Your task to perform on an android device: Do I have any events this weekend? Image 0: 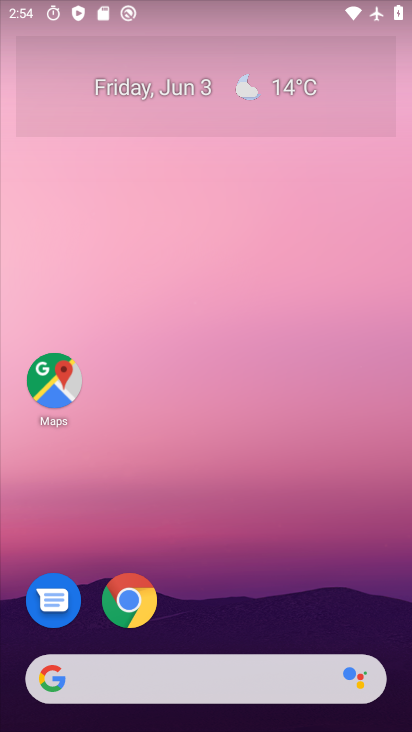
Step 0: click (214, 333)
Your task to perform on an android device: Do I have any events this weekend? Image 1: 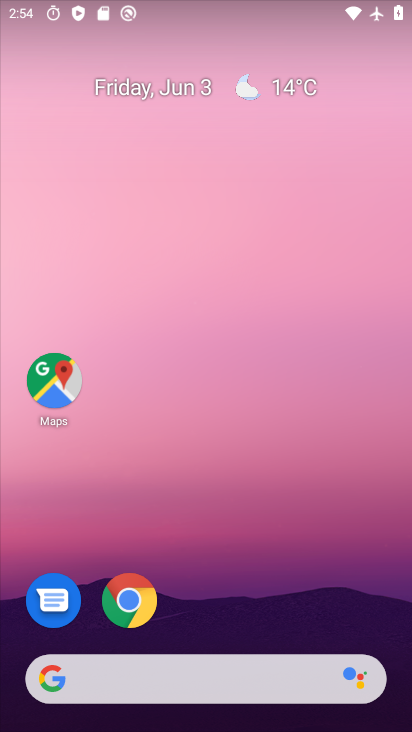
Step 1: drag from (268, 487) to (211, 21)
Your task to perform on an android device: Do I have any events this weekend? Image 2: 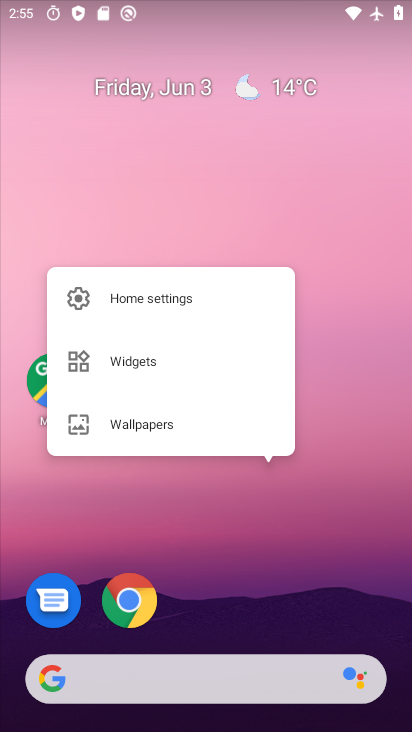
Step 2: click (329, 405)
Your task to perform on an android device: Do I have any events this weekend? Image 3: 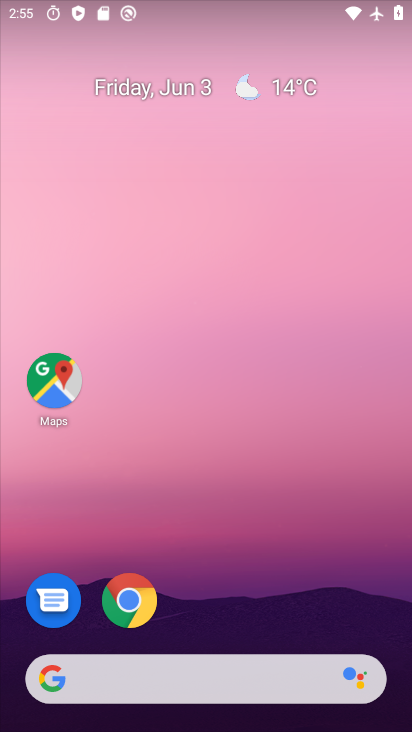
Step 3: drag from (205, 580) to (204, 33)
Your task to perform on an android device: Do I have any events this weekend? Image 4: 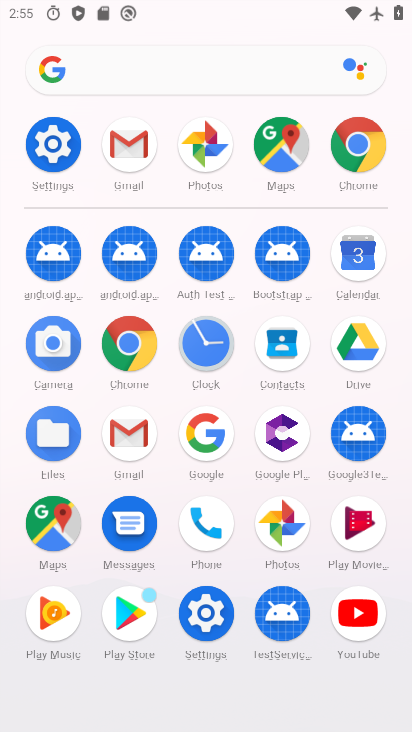
Step 4: drag from (10, 523) to (18, 207)
Your task to perform on an android device: Do I have any events this weekend? Image 5: 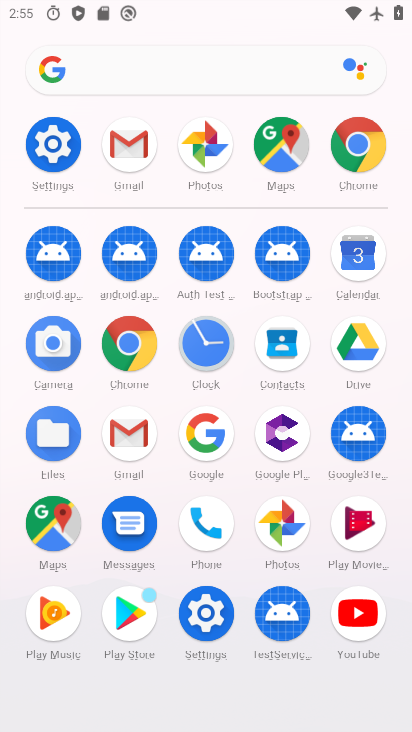
Step 5: click (350, 249)
Your task to perform on an android device: Do I have any events this weekend? Image 6: 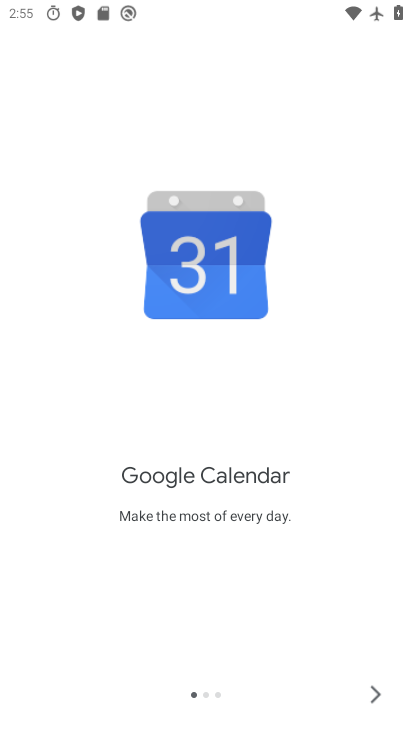
Step 6: click (382, 688)
Your task to perform on an android device: Do I have any events this weekend? Image 7: 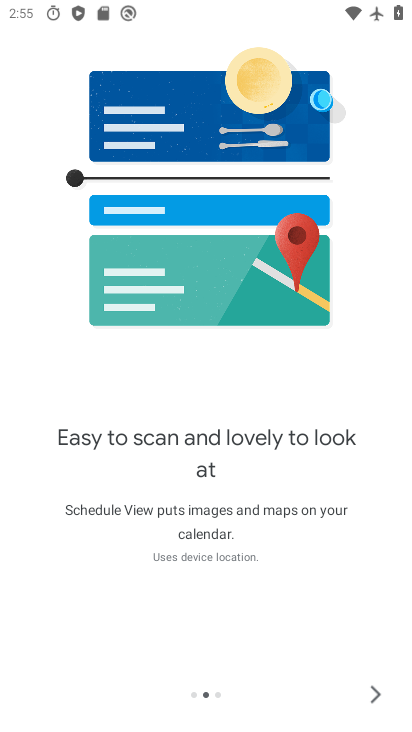
Step 7: click (371, 691)
Your task to perform on an android device: Do I have any events this weekend? Image 8: 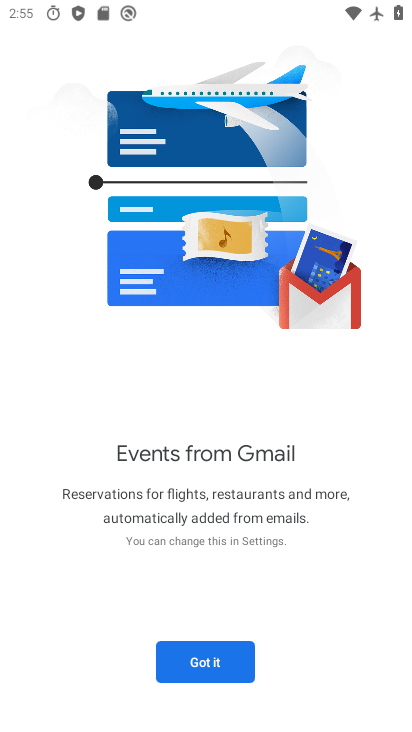
Step 8: click (202, 664)
Your task to perform on an android device: Do I have any events this weekend? Image 9: 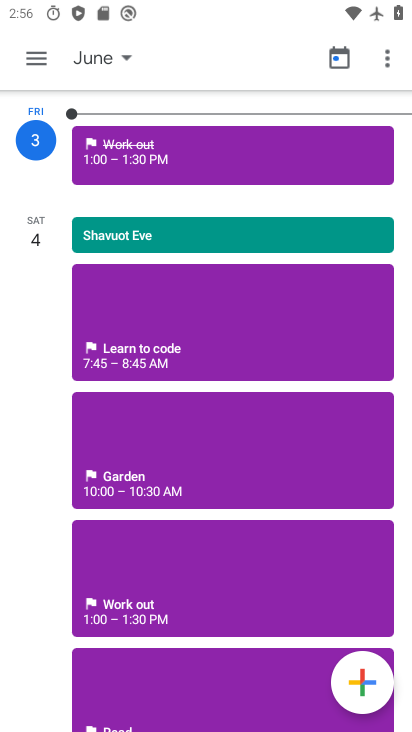
Step 9: click (36, 44)
Your task to perform on an android device: Do I have any events this weekend? Image 10: 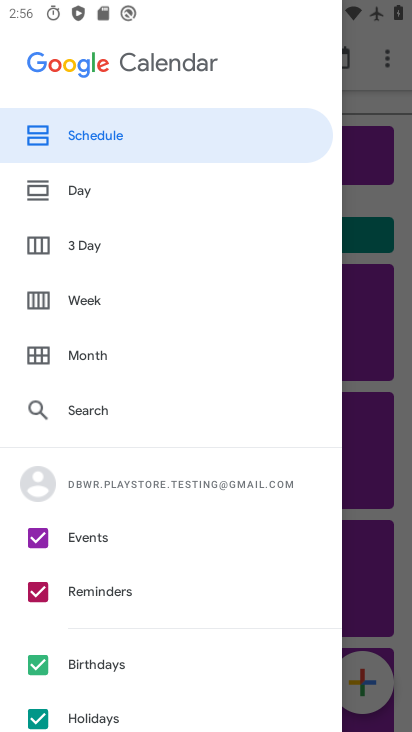
Step 10: click (110, 296)
Your task to perform on an android device: Do I have any events this weekend? Image 11: 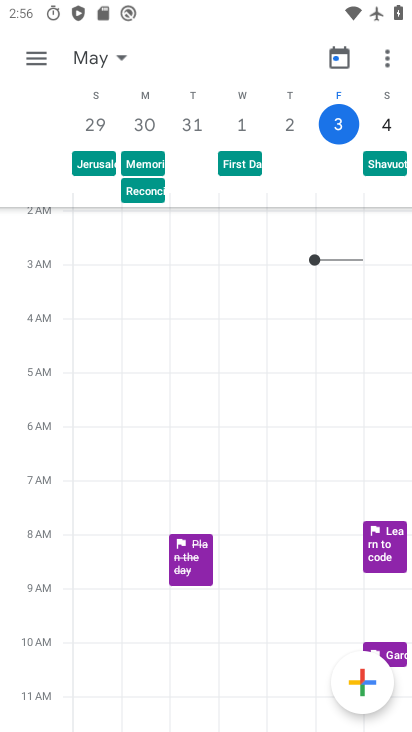
Step 11: task complete